Your task to perform on an android device: Search for Mexican restaurants on Maps Image 0: 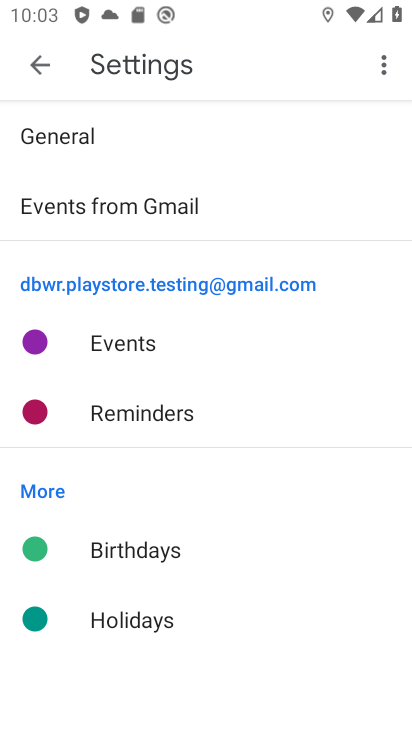
Step 0: press home button
Your task to perform on an android device: Search for Mexican restaurants on Maps Image 1: 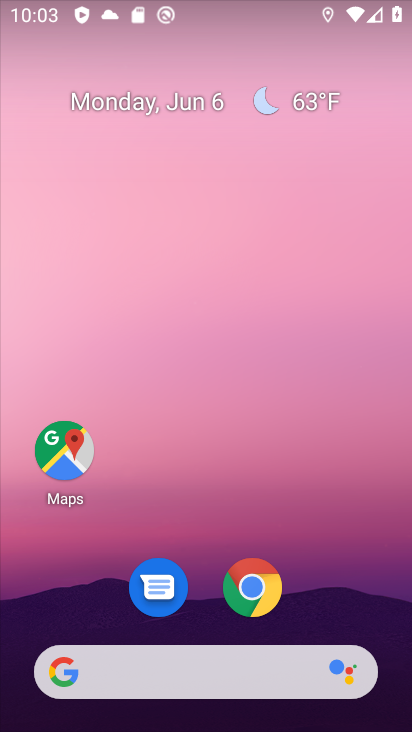
Step 1: drag from (194, 617) to (194, 266)
Your task to perform on an android device: Search for Mexican restaurants on Maps Image 2: 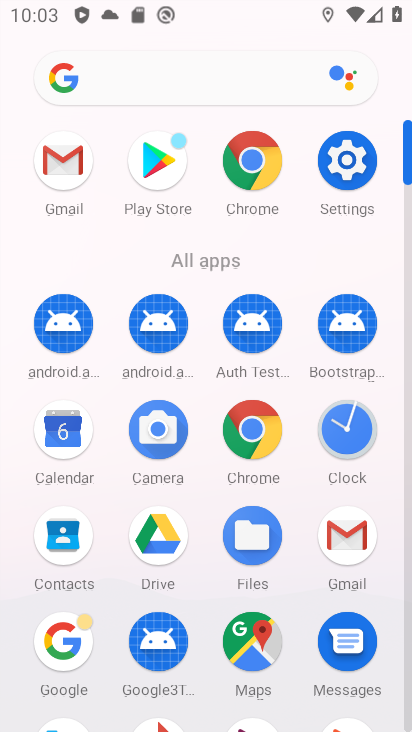
Step 2: click (245, 652)
Your task to perform on an android device: Search for Mexican restaurants on Maps Image 3: 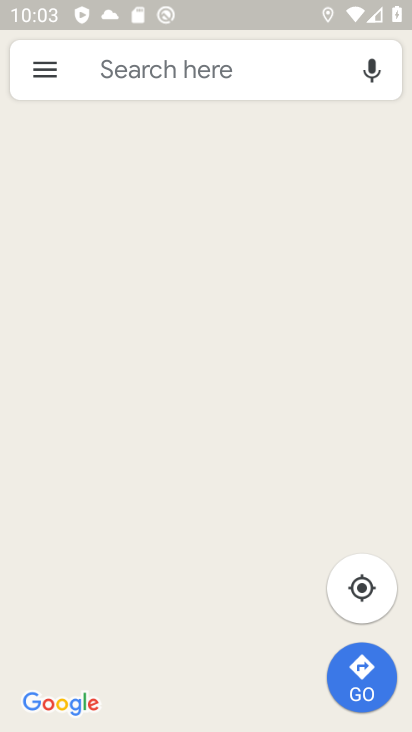
Step 3: click (168, 72)
Your task to perform on an android device: Search for Mexican restaurants on Maps Image 4: 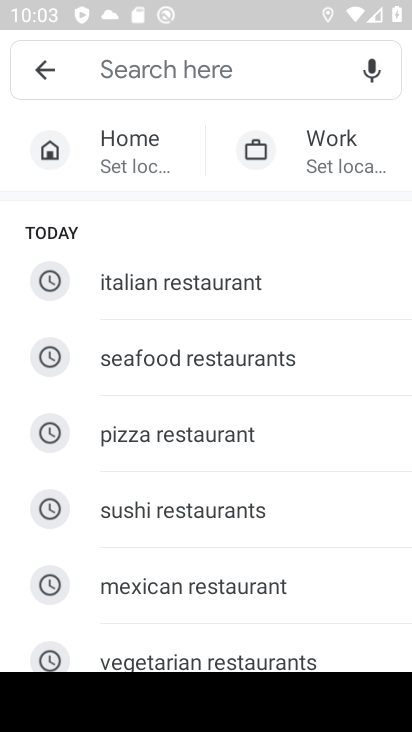
Step 4: click (172, 594)
Your task to perform on an android device: Search for Mexican restaurants on Maps Image 5: 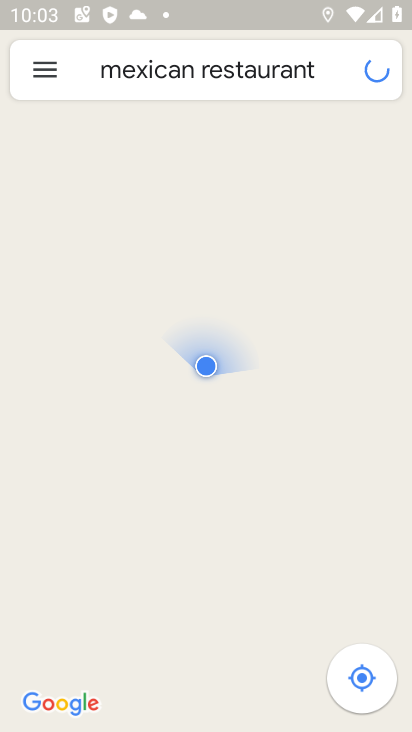
Step 5: task complete